Your task to perform on an android device: Look up the best rated headphones on Walmart. Image 0: 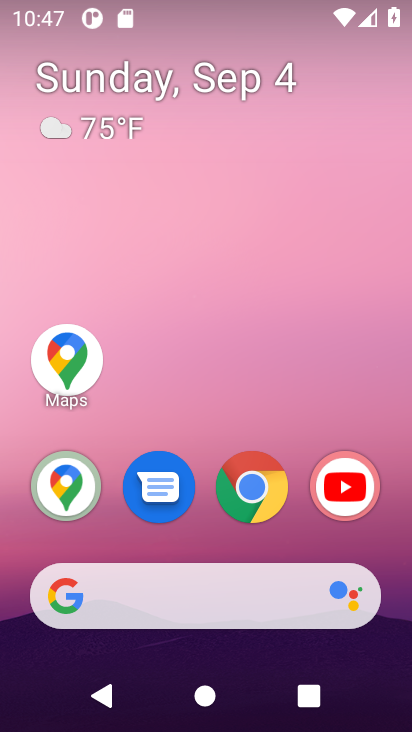
Step 0: click (343, 485)
Your task to perform on an android device: Look up the best rated headphones on Walmart. Image 1: 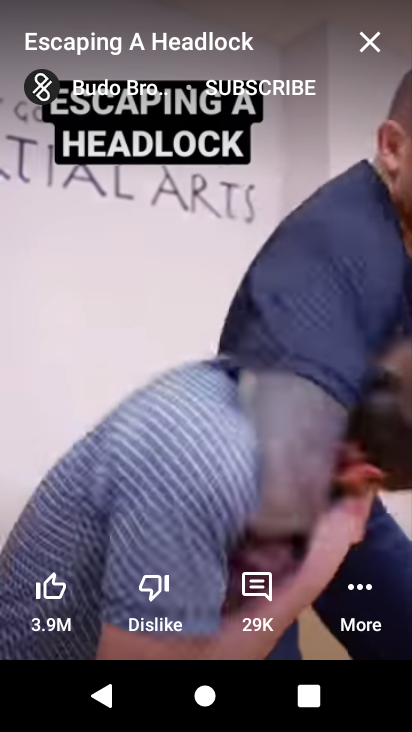
Step 1: task complete